Your task to perform on an android device: empty trash in the gmail app Image 0: 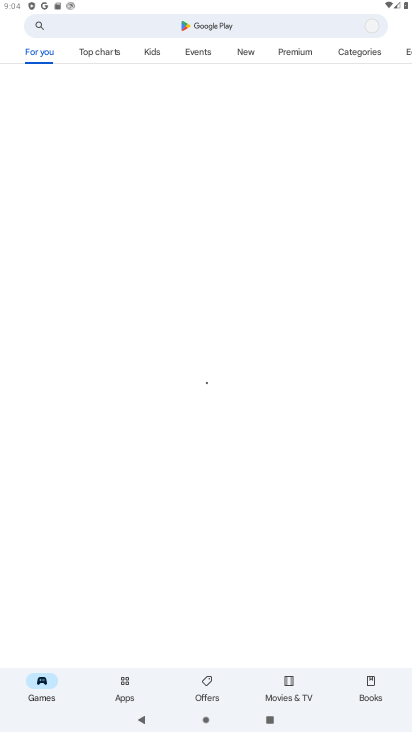
Step 0: press home button
Your task to perform on an android device: empty trash in the gmail app Image 1: 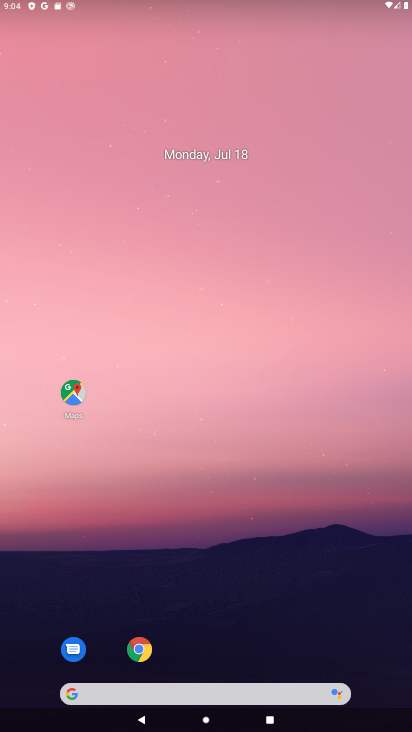
Step 1: drag from (330, 701) to (318, 259)
Your task to perform on an android device: empty trash in the gmail app Image 2: 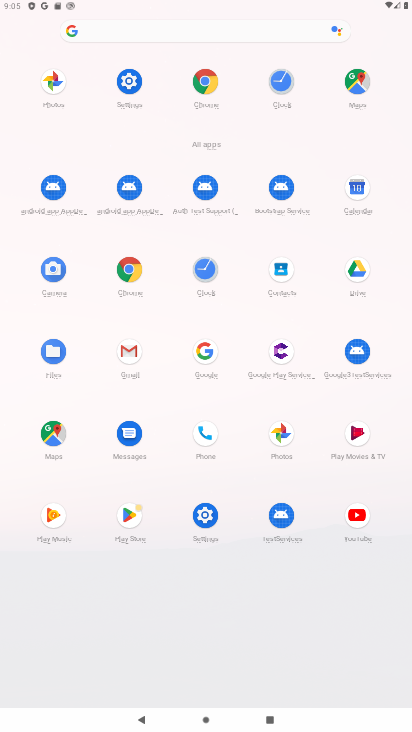
Step 2: click (135, 358)
Your task to perform on an android device: empty trash in the gmail app Image 3: 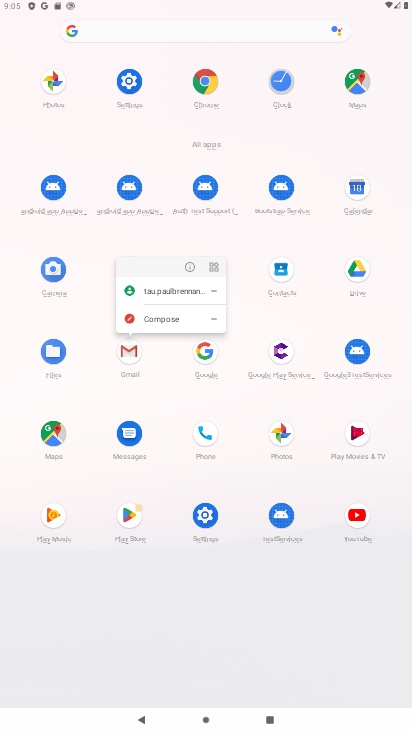
Step 3: click (142, 346)
Your task to perform on an android device: empty trash in the gmail app Image 4: 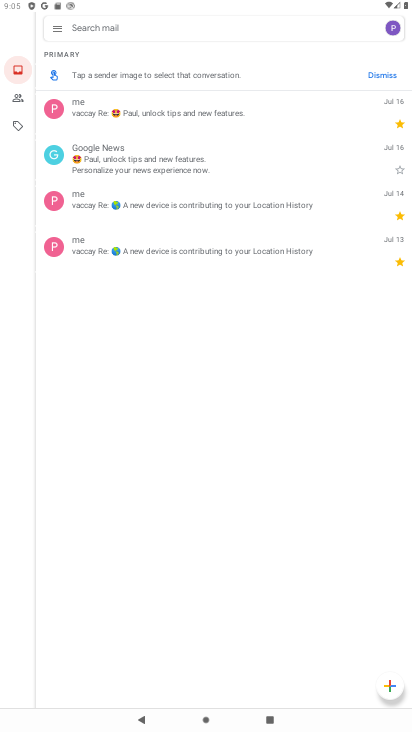
Step 4: click (53, 35)
Your task to perform on an android device: empty trash in the gmail app Image 5: 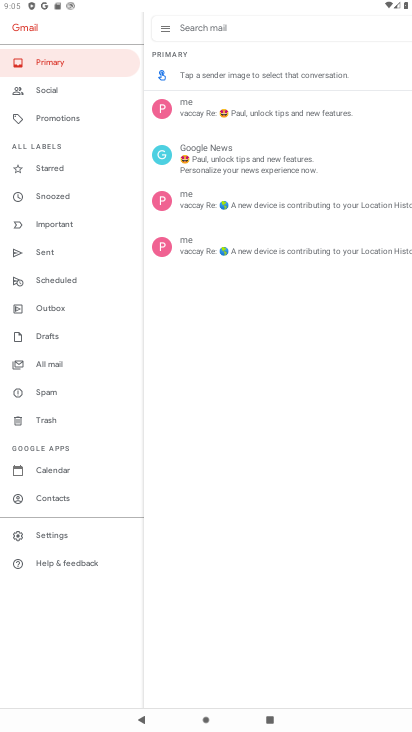
Step 5: click (65, 422)
Your task to perform on an android device: empty trash in the gmail app Image 6: 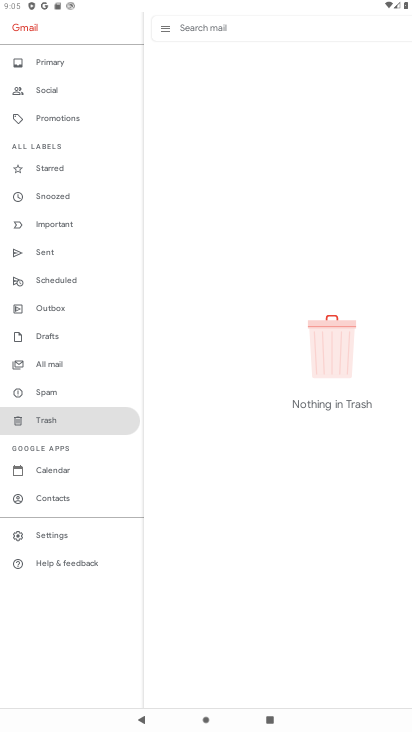
Step 6: task complete